Your task to perform on an android device: open app "The Home Depot" (install if not already installed) and go to login screen Image 0: 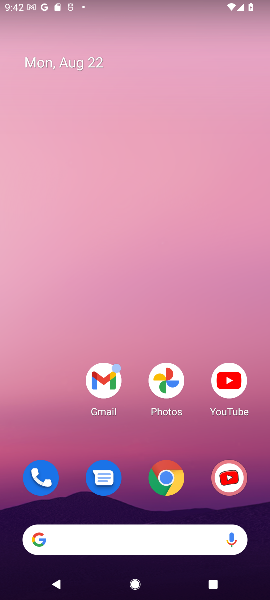
Step 0: drag from (140, 497) to (135, 119)
Your task to perform on an android device: open app "The Home Depot" (install if not already installed) and go to login screen Image 1: 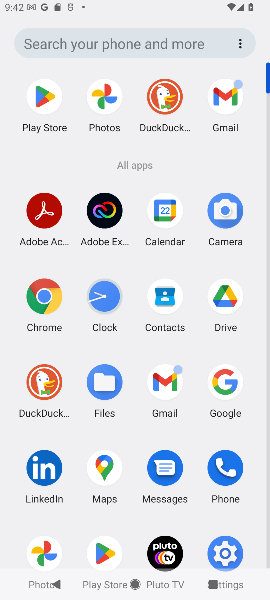
Step 1: click (49, 107)
Your task to perform on an android device: open app "The Home Depot" (install if not already installed) and go to login screen Image 2: 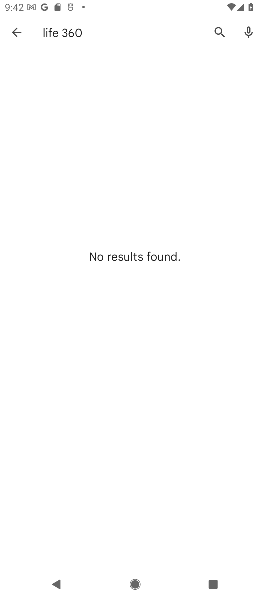
Step 2: click (219, 36)
Your task to perform on an android device: open app "The Home Depot" (install if not already installed) and go to login screen Image 3: 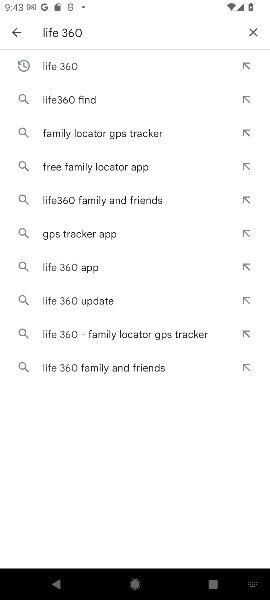
Step 3: click (243, 36)
Your task to perform on an android device: open app "The Home Depot" (install if not already installed) and go to login screen Image 4: 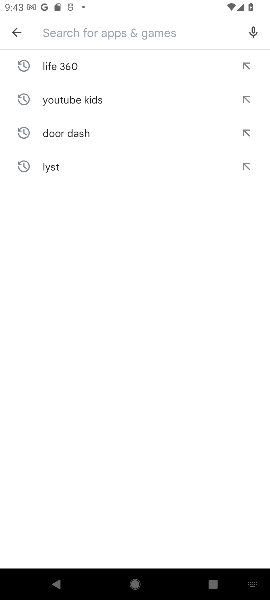
Step 4: type "the home depot"
Your task to perform on an android device: open app "The Home Depot" (install if not already installed) and go to login screen Image 5: 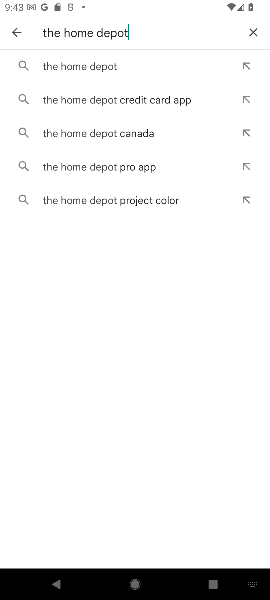
Step 5: click (85, 71)
Your task to perform on an android device: open app "The Home Depot" (install if not already installed) and go to login screen Image 6: 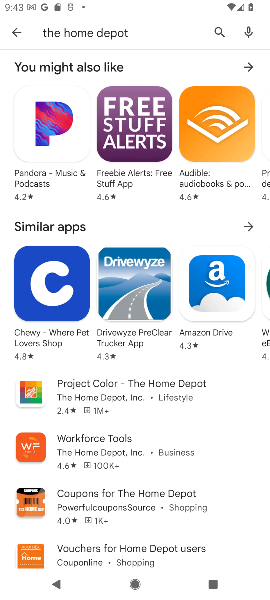
Step 6: task complete